Your task to perform on an android device: open the mobile data screen to see how much data has been used Image 0: 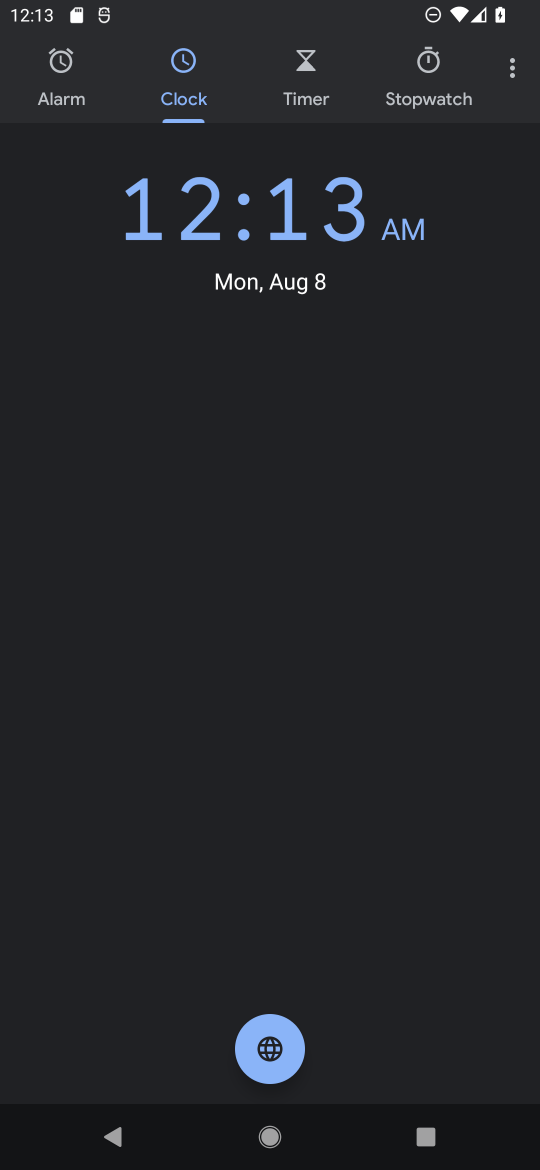
Step 0: press home button
Your task to perform on an android device: open the mobile data screen to see how much data has been used Image 1: 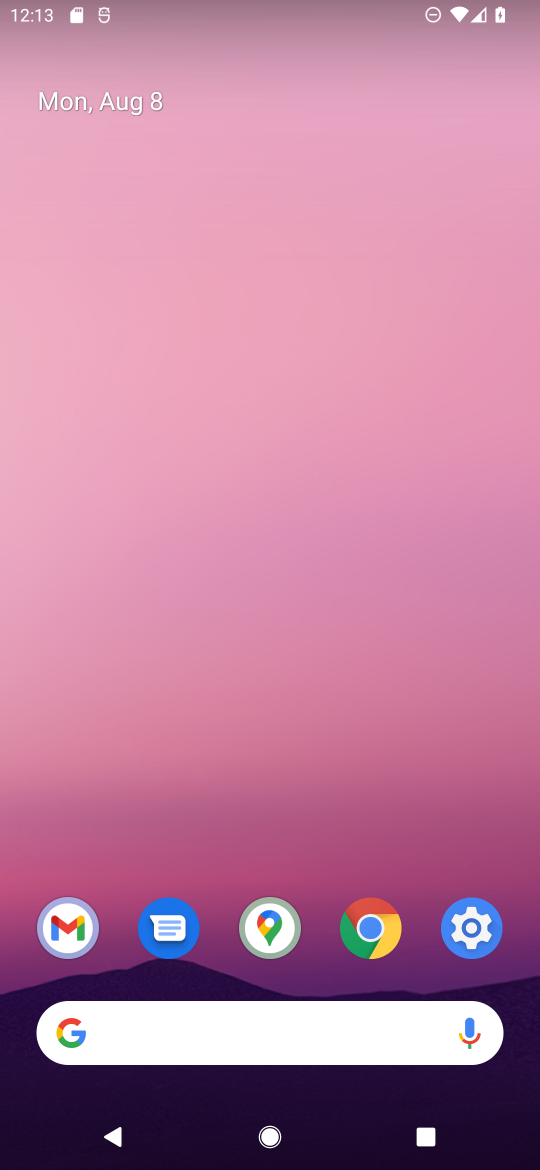
Step 1: drag from (347, 1056) to (157, 154)
Your task to perform on an android device: open the mobile data screen to see how much data has been used Image 2: 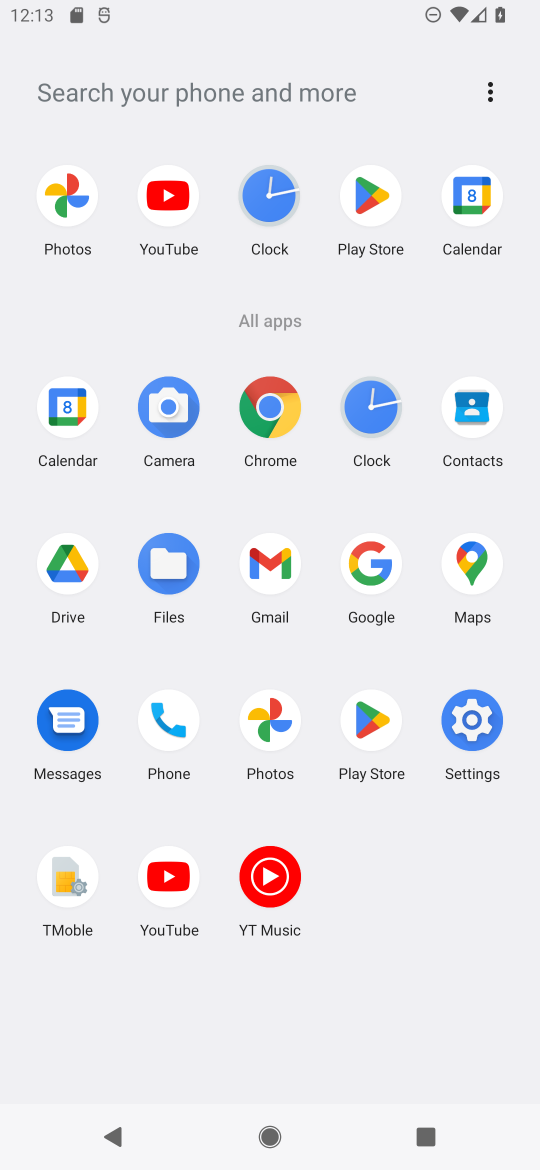
Step 2: click (480, 740)
Your task to perform on an android device: open the mobile data screen to see how much data has been used Image 3: 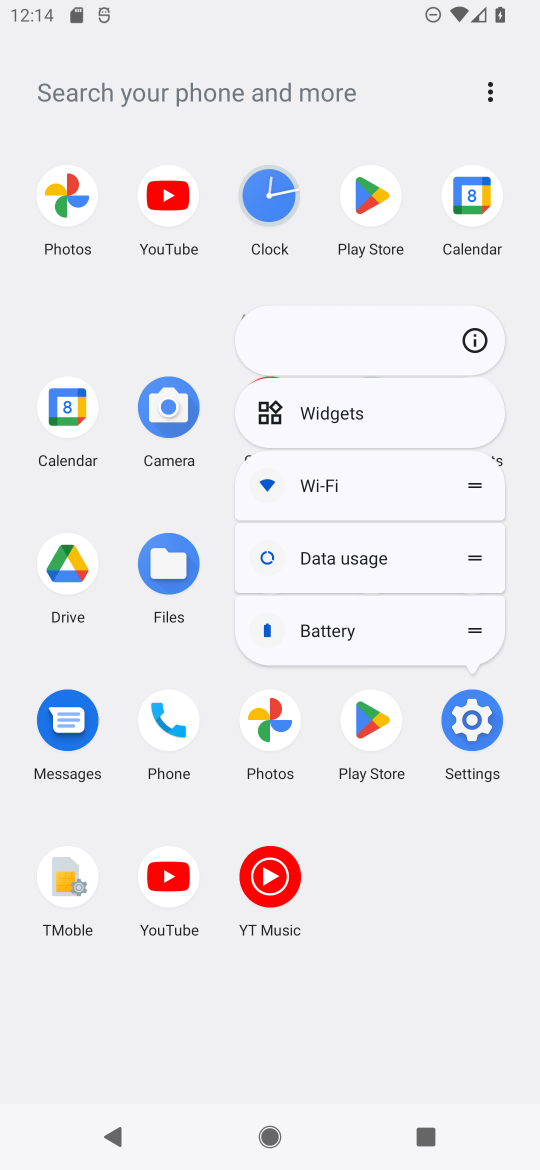
Step 3: click (485, 713)
Your task to perform on an android device: open the mobile data screen to see how much data has been used Image 4: 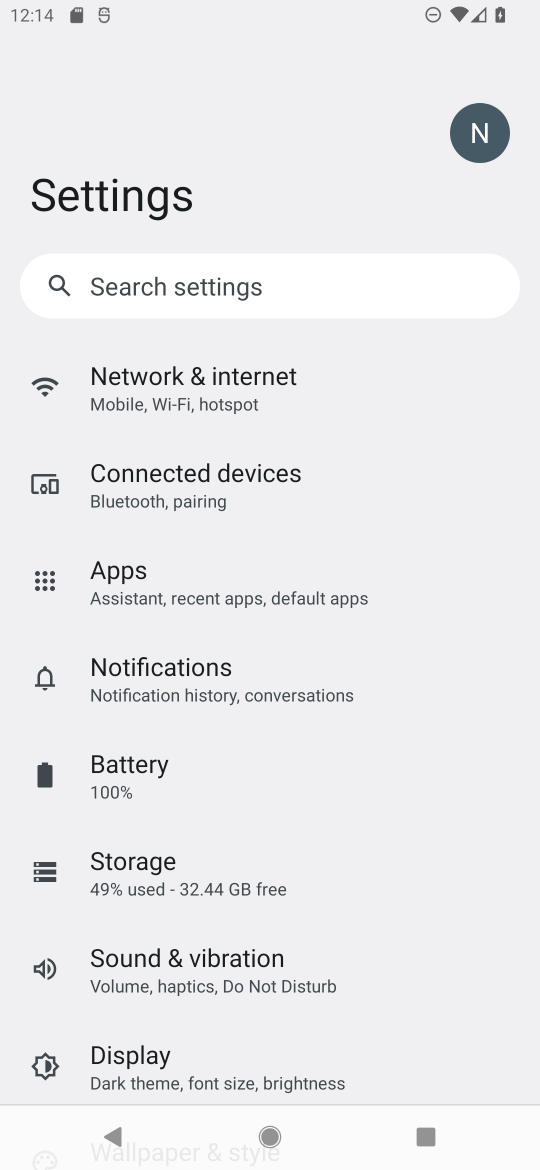
Step 4: click (164, 287)
Your task to perform on an android device: open the mobile data screen to see how much data has been used Image 5: 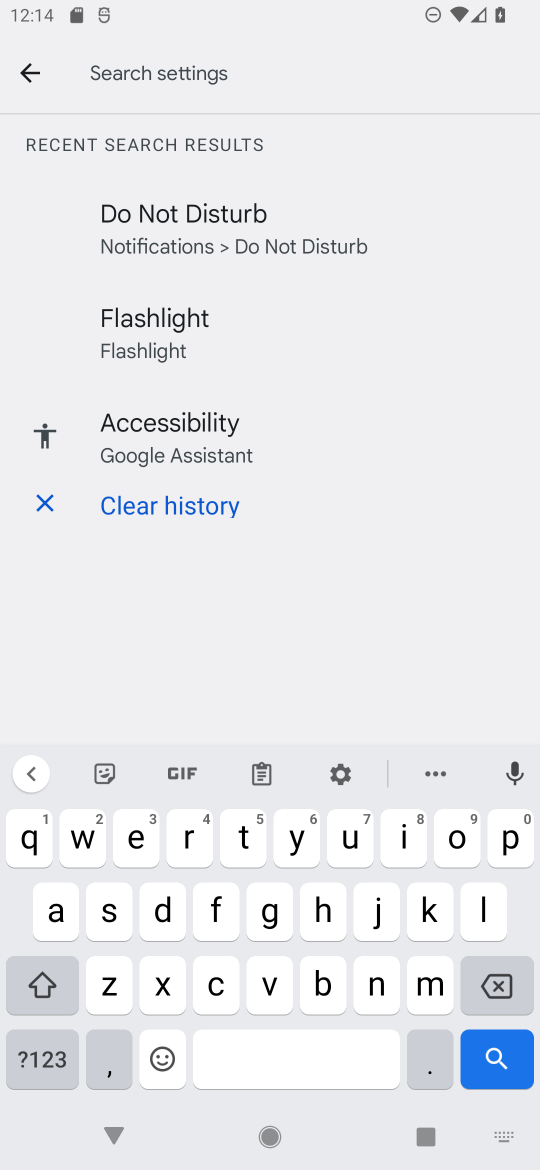
Step 5: click (162, 908)
Your task to perform on an android device: open the mobile data screen to see how much data has been used Image 6: 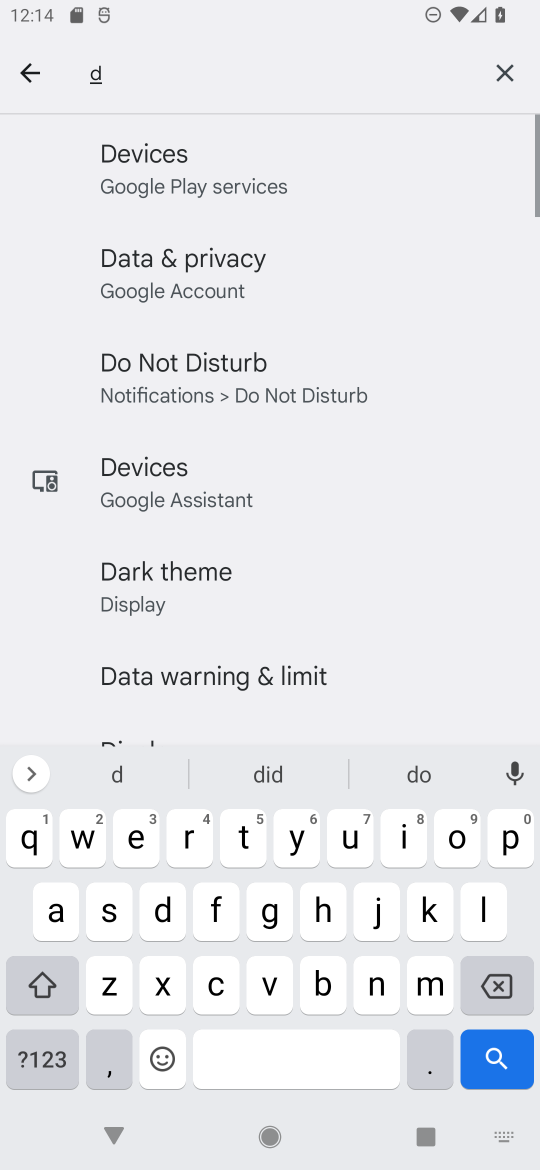
Step 6: click (47, 911)
Your task to perform on an android device: open the mobile data screen to see how much data has been used Image 7: 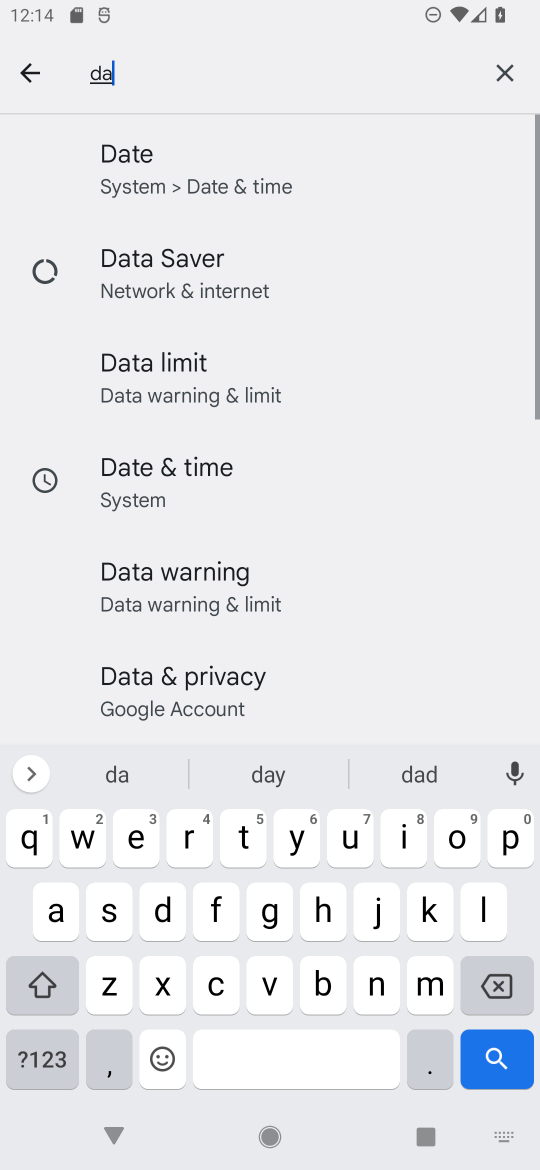
Step 7: click (247, 835)
Your task to perform on an android device: open the mobile data screen to see how much data has been used Image 8: 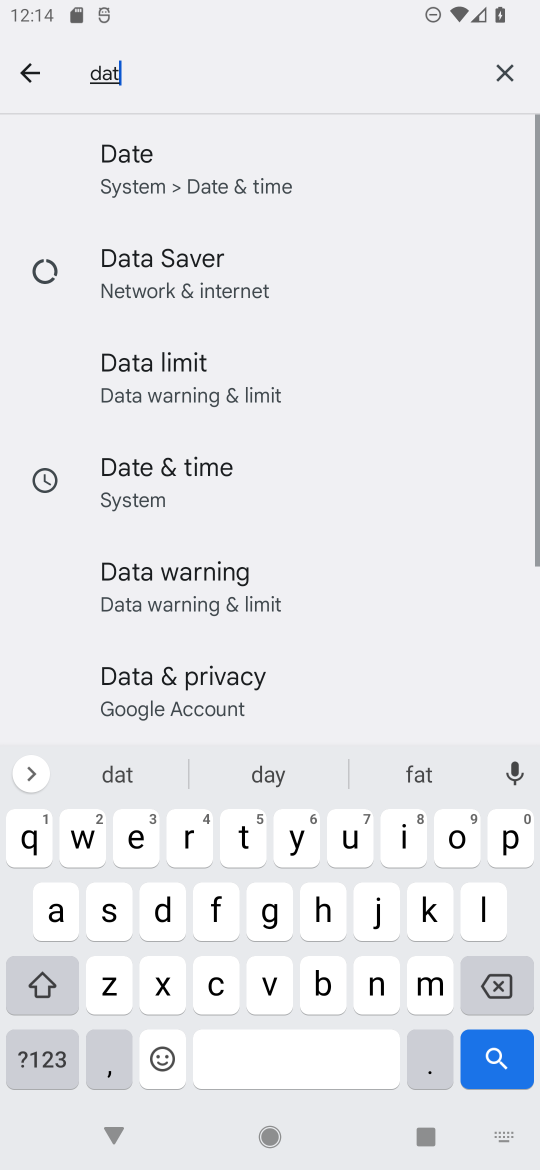
Step 8: click (49, 911)
Your task to perform on an android device: open the mobile data screen to see how much data has been used Image 9: 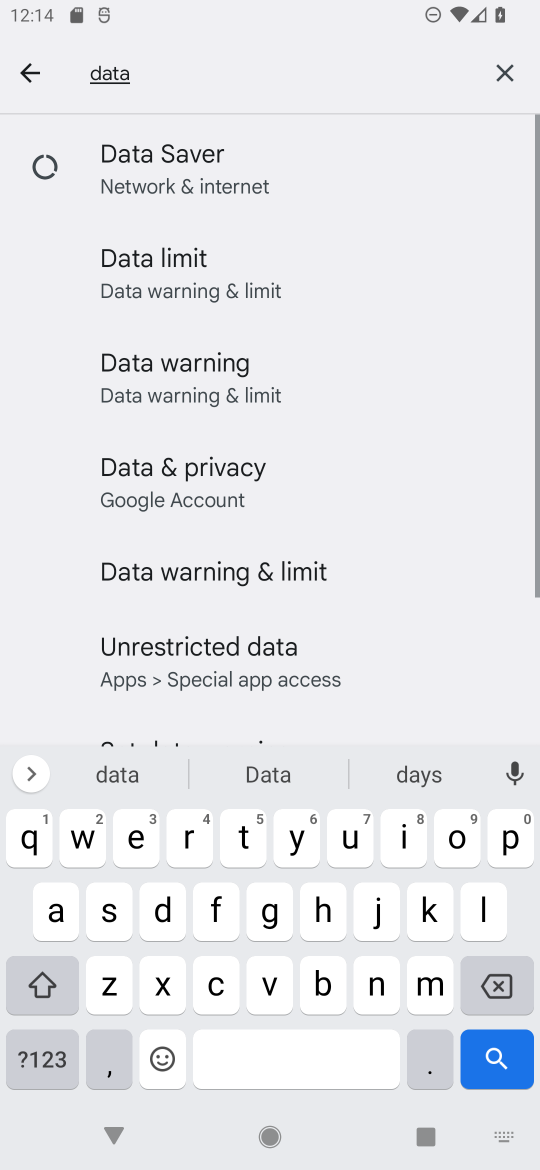
Step 9: click (275, 1063)
Your task to perform on an android device: open the mobile data screen to see how much data has been used Image 10: 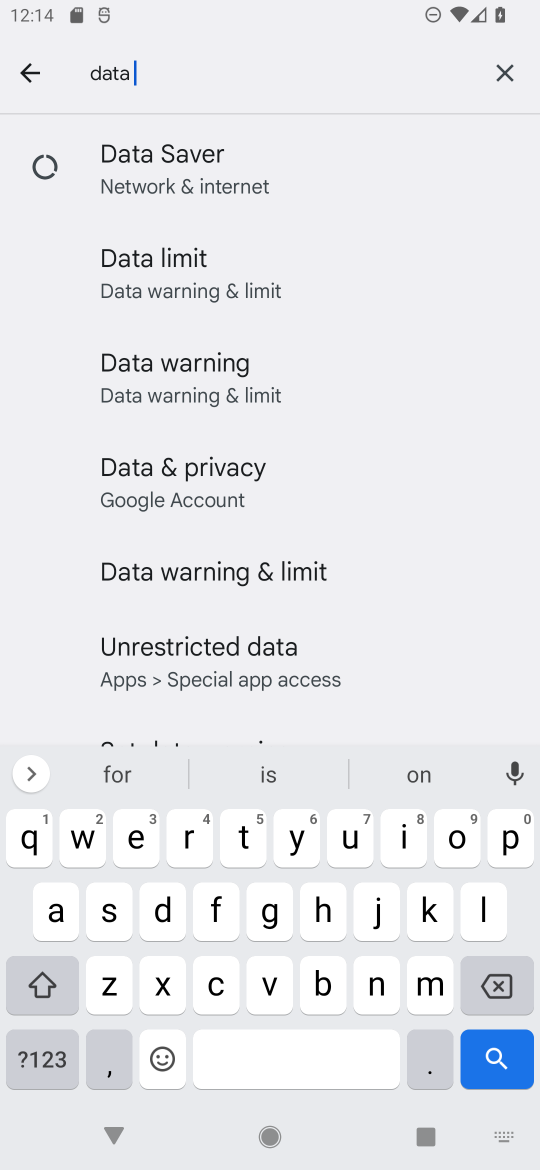
Step 10: click (347, 837)
Your task to perform on an android device: open the mobile data screen to see how much data has been used Image 11: 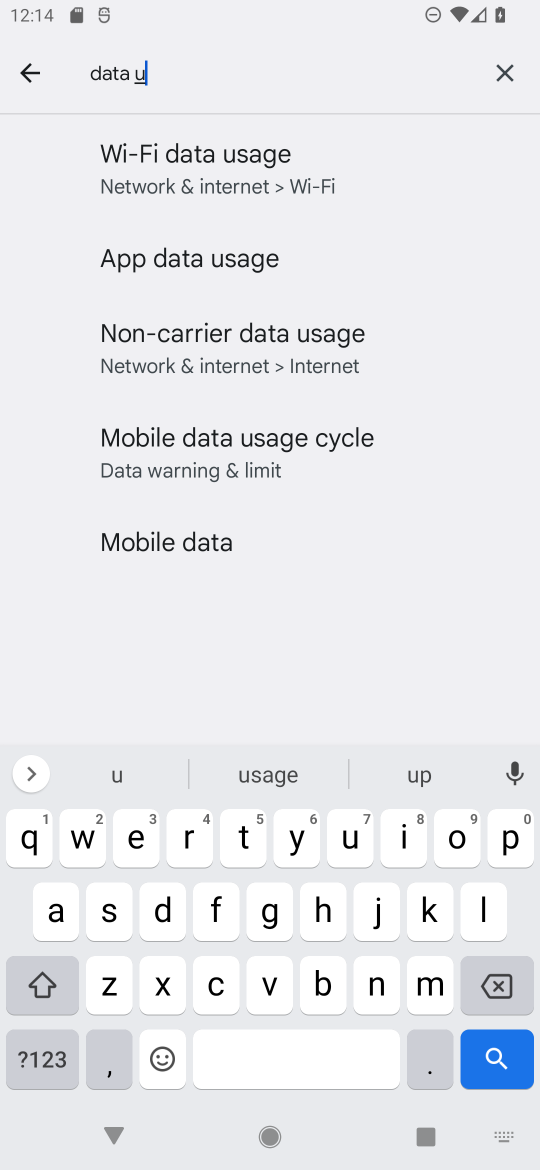
Step 11: click (245, 274)
Your task to perform on an android device: open the mobile data screen to see how much data has been used Image 12: 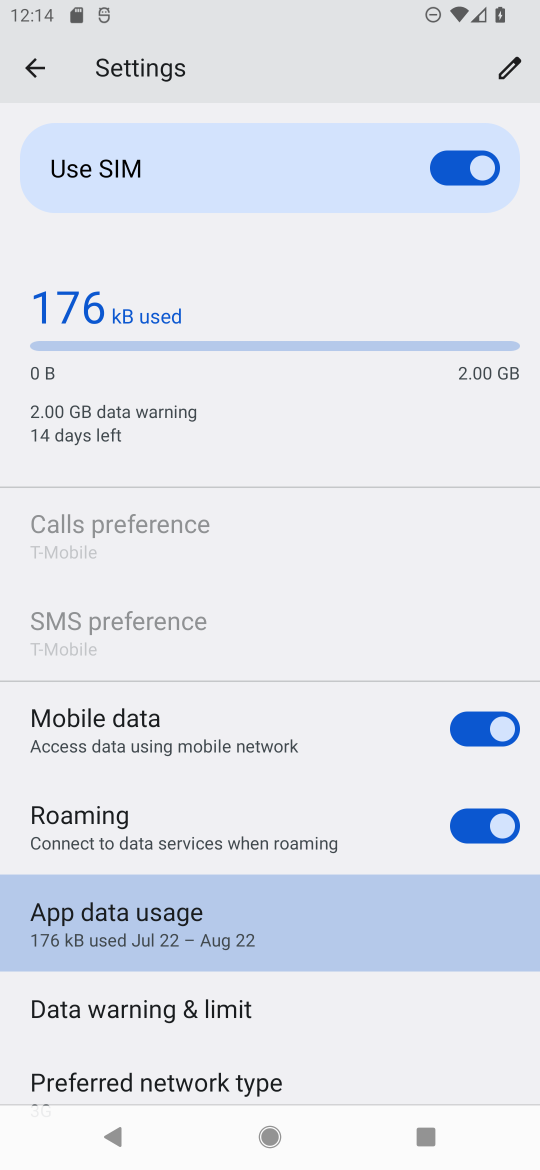
Step 12: click (199, 915)
Your task to perform on an android device: open the mobile data screen to see how much data has been used Image 13: 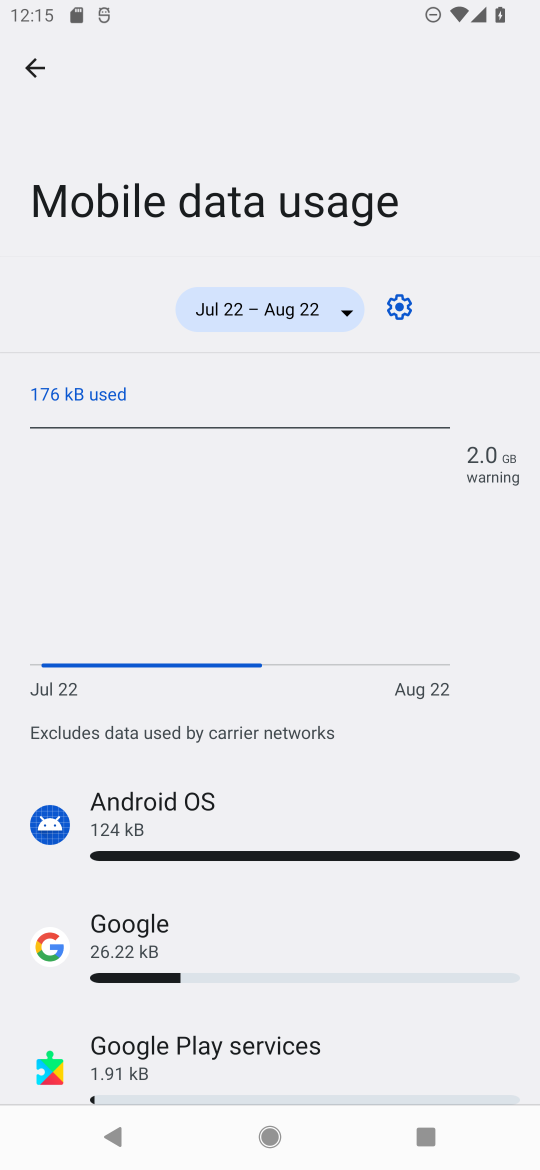
Step 13: task complete